Your task to perform on an android device: Show me popular games on the Play Store Image 0: 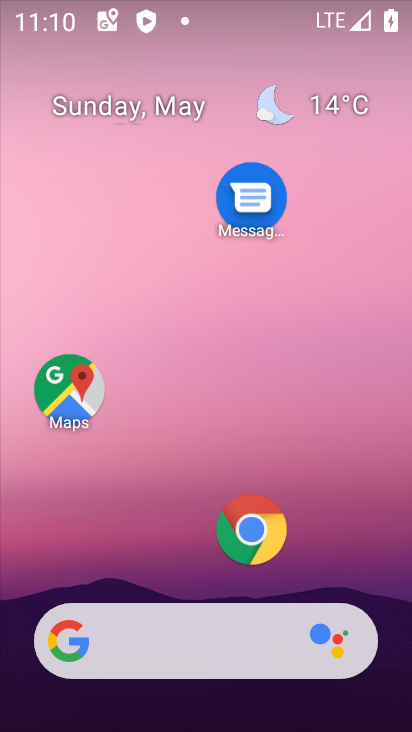
Step 0: drag from (159, 517) to (64, 33)
Your task to perform on an android device: Show me popular games on the Play Store Image 1: 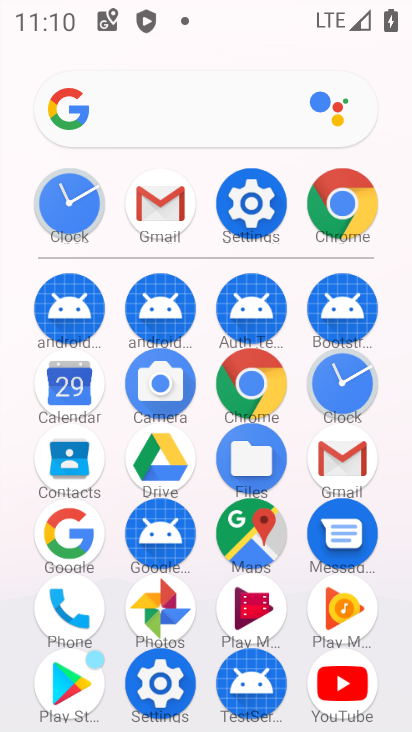
Step 1: click (59, 664)
Your task to perform on an android device: Show me popular games on the Play Store Image 2: 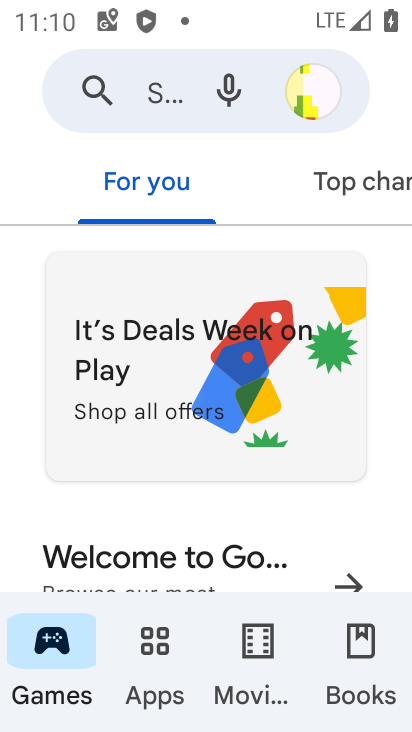
Step 2: click (345, 195)
Your task to perform on an android device: Show me popular games on the Play Store Image 3: 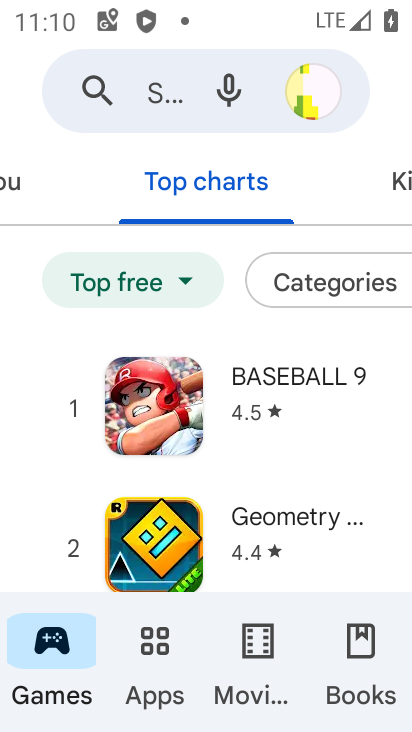
Step 3: task complete